Your task to perform on an android device: Do I have any events tomorrow? Image 0: 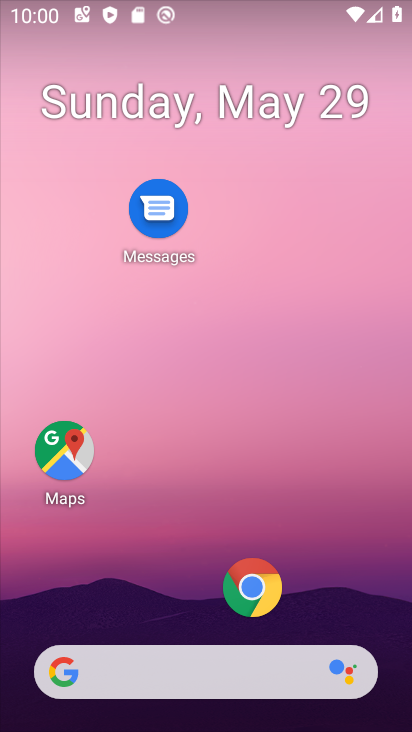
Step 0: drag from (183, 439) to (292, 34)
Your task to perform on an android device: Do I have any events tomorrow? Image 1: 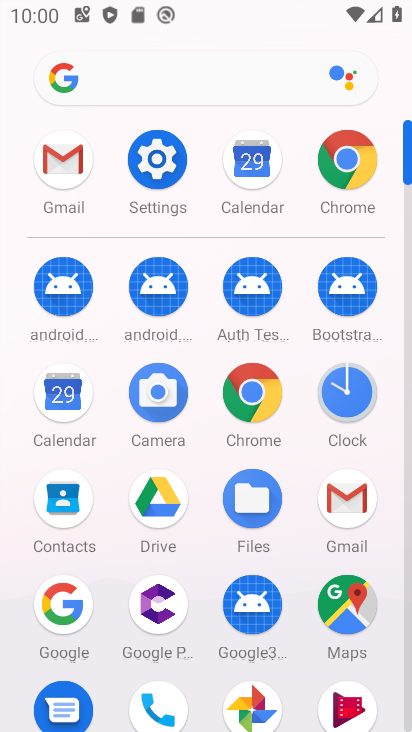
Step 1: click (60, 385)
Your task to perform on an android device: Do I have any events tomorrow? Image 2: 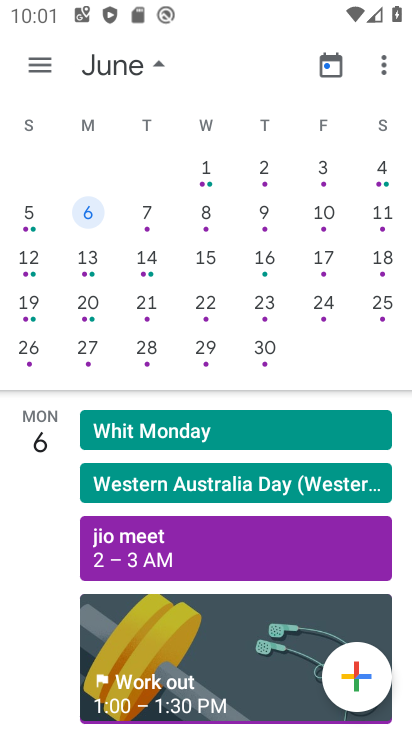
Step 2: drag from (20, 274) to (396, 263)
Your task to perform on an android device: Do I have any events tomorrow? Image 3: 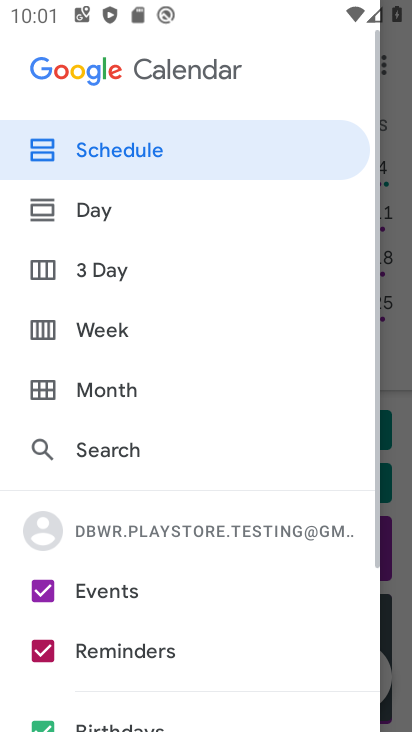
Step 3: drag from (385, 271) to (126, 240)
Your task to perform on an android device: Do I have any events tomorrow? Image 4: 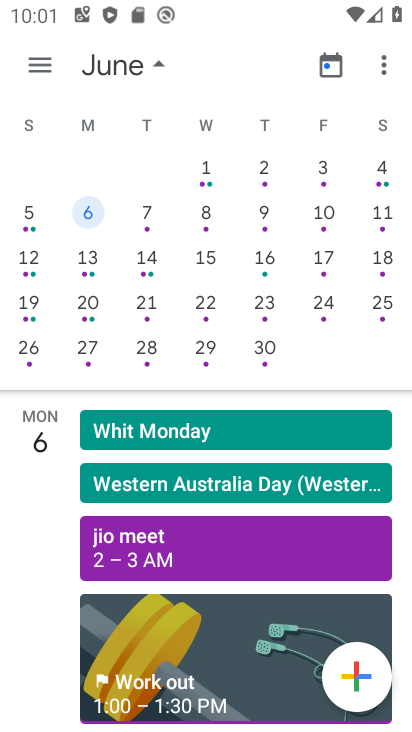
Step 4: drag from (36, 276) to (404, 275)
Your task to perform on an android device: Do I have any events tomorrow? Image 5: 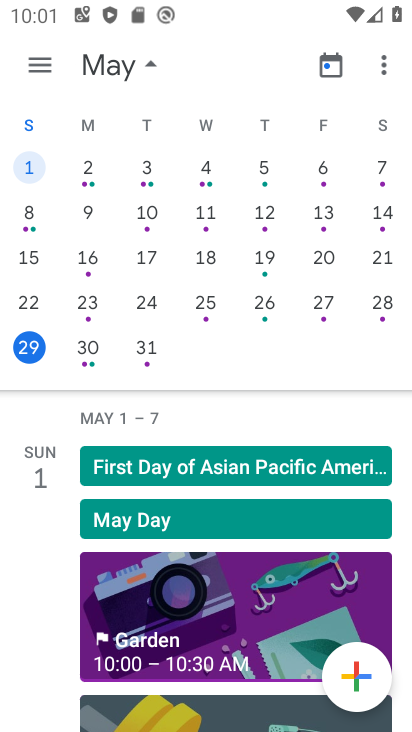
Step 5: click (94, 347)
Your task to perform on an android device: Do I have any events tomorrow? Image 6: 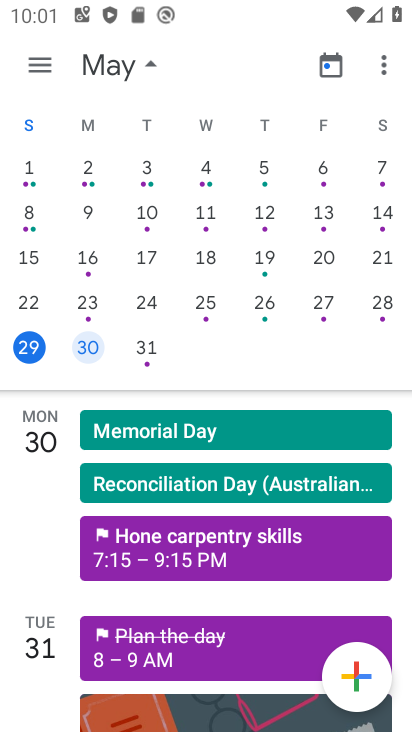
Step 6: click (139, 345)
Your task to perform on an android device: Do I have any events tomorrow? Image 7: 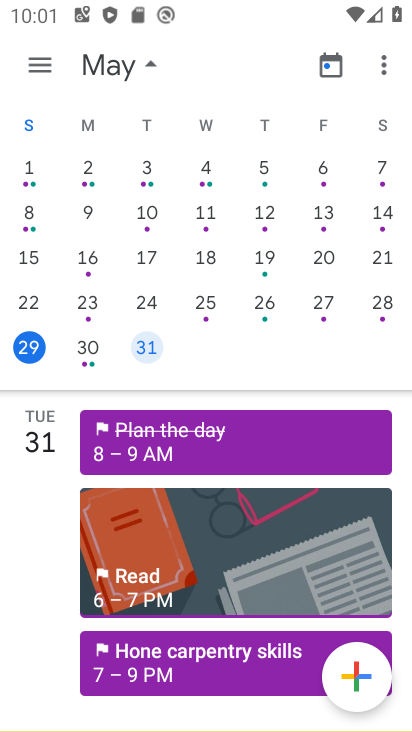
Step 7: click (156, 661)
Your task to perform on an android device: Do I have any events tomorrow? Image 8: 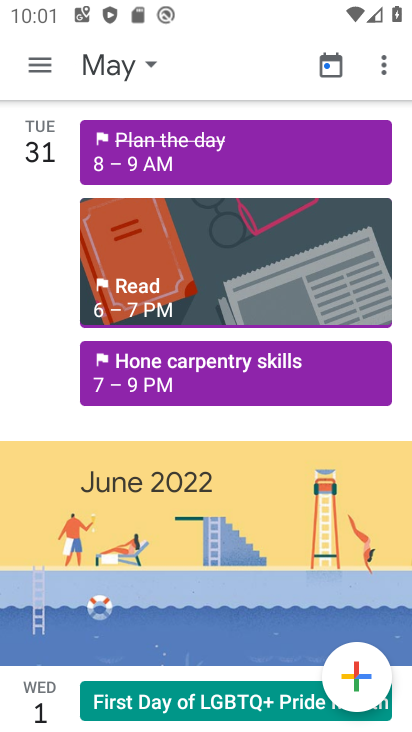
Step 8: task complete